Your task to perform on an android device: change the clock display to analog Image 0: 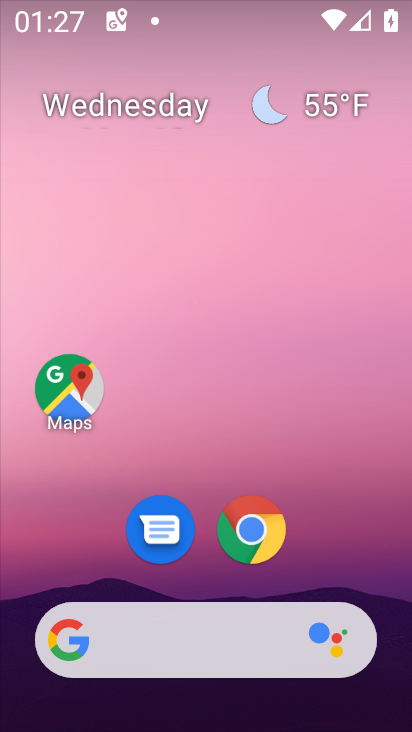
Step 0: drag from (194, 717) to (185, 204)
Your task to perform on an android device: change the clock display to analog Image 1: 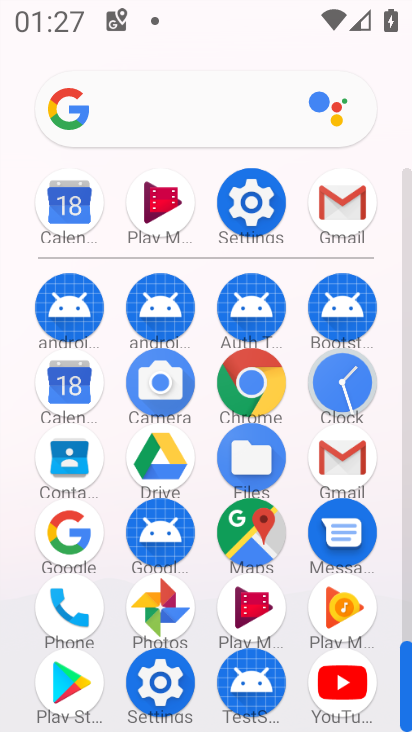
Step 1: click (342, 381)
Your task to perform on an android device: change the clock display to analog Image 2: 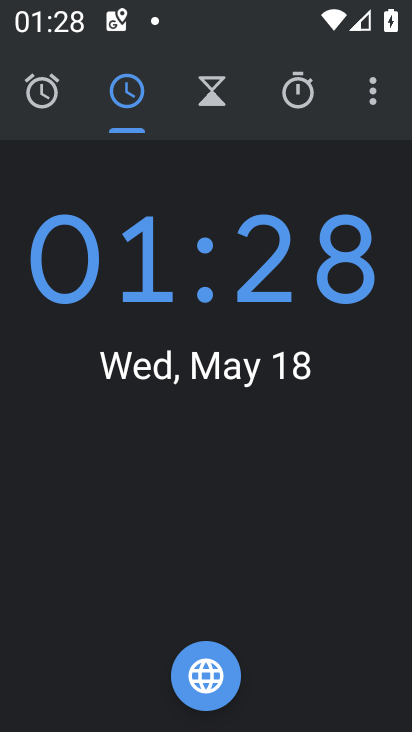
Step 2: click (374, 104)
Your task to perform on an android device: change the clock display to analog Image 3: 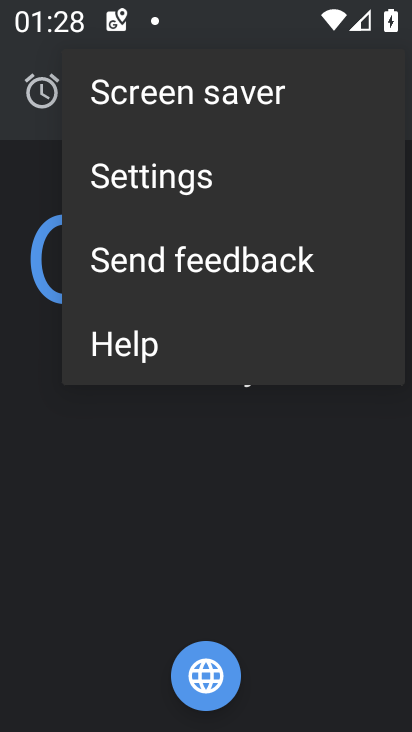
Step 3: click (177, 178)
Your task to perform on an android device: change the clock display to analog Image 4: 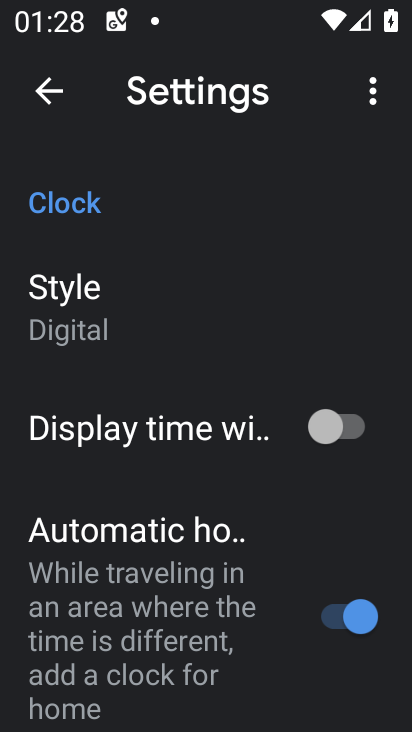
Step 4: click (93, 310)
Your task to perform on an android device: change the clock display to analog Image 5: 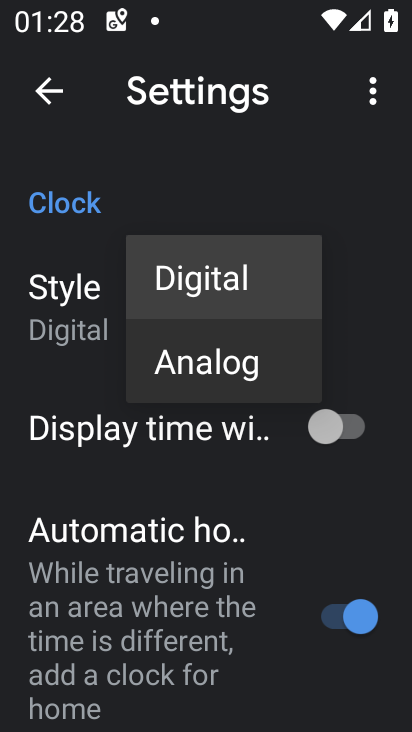
Step 5: click (226, 363)
Your task to perform on an android device: change the clock display to analog Image 6: 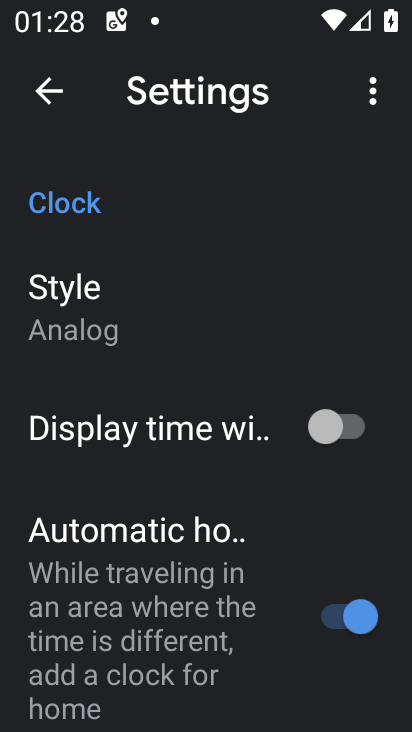
Step 6: task complete